Your task to perform on an android device: Search for sushi restaurants on Maps Image 0: 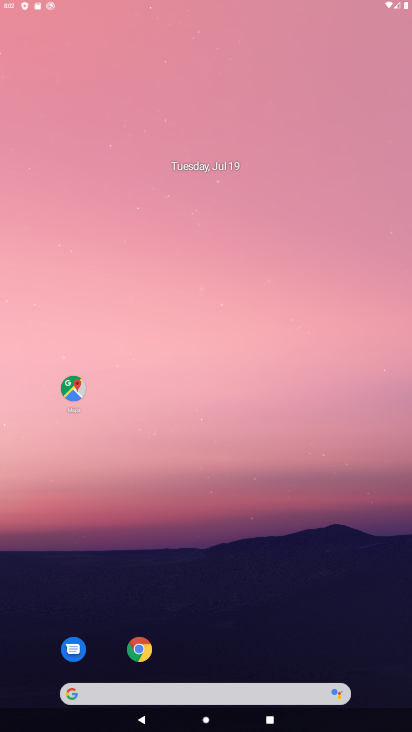
Step 0: press home button
Your task to perform on an android device: Search for sushi restaurants on Maps Image 1: 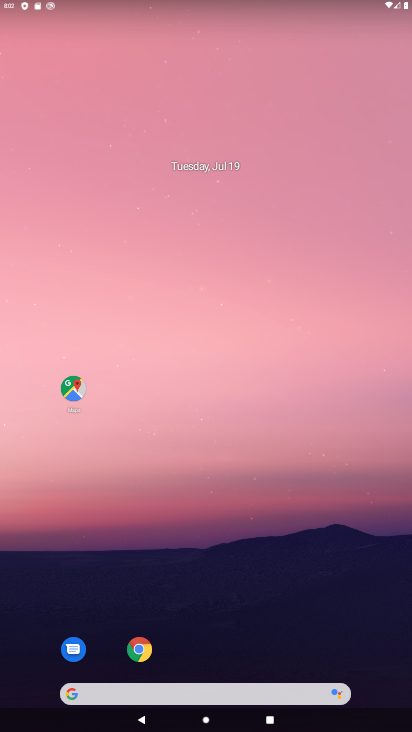
Step 1: click (70, 387)
Your task to perform on an android device: Search for sushi restaurants on Maps Image 2: 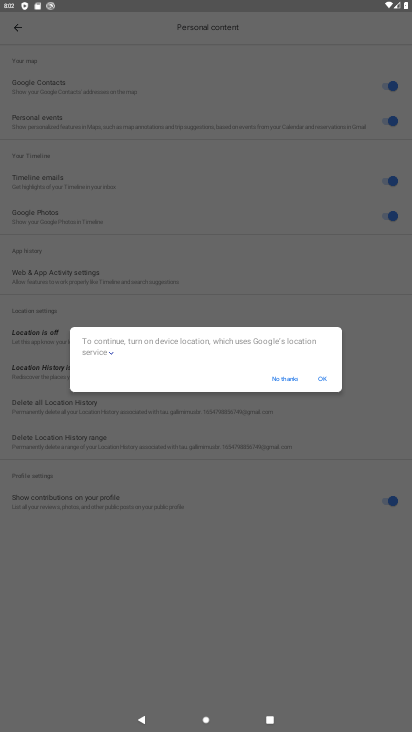
Step 2: click (323, 376)
Your task to perform on an android device: Search for sushi restaurants on Maps Image 3: 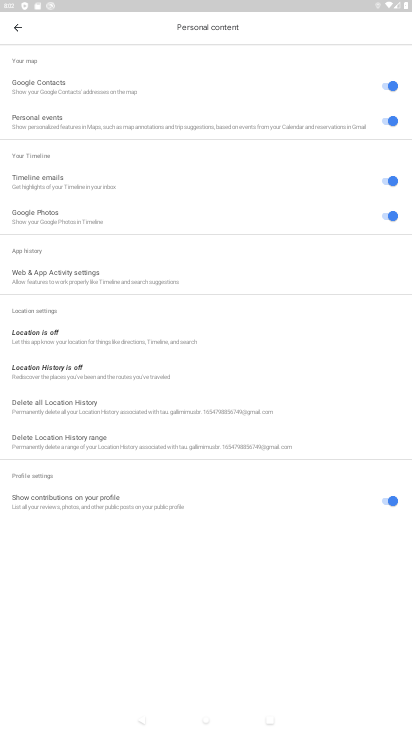
Step 3: click (18, 30)
Your task to perform on an android device: Search for sushi restaurants on Maps Image 4: 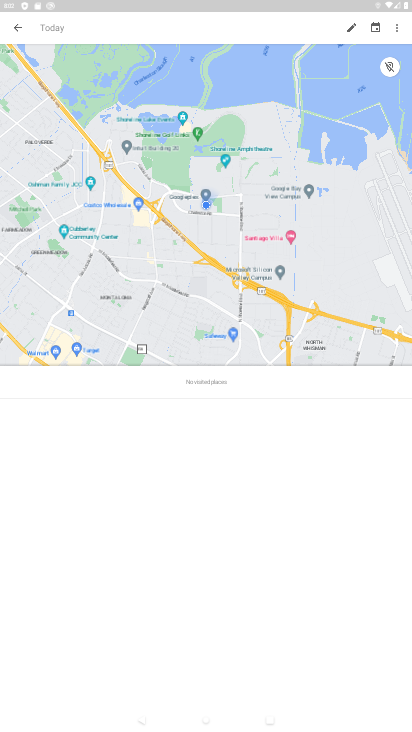
Step 4: click (8, 19)
Your task to perform on an android device: Search for sushi restaurants on Maps Image 5: 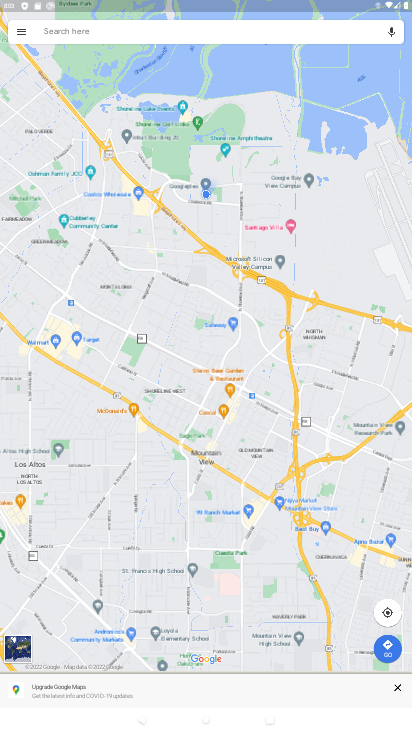
Step 5: click (99, 30)
Your task to perform on an android device: Search for sushi restaurants on Maps Image 6: 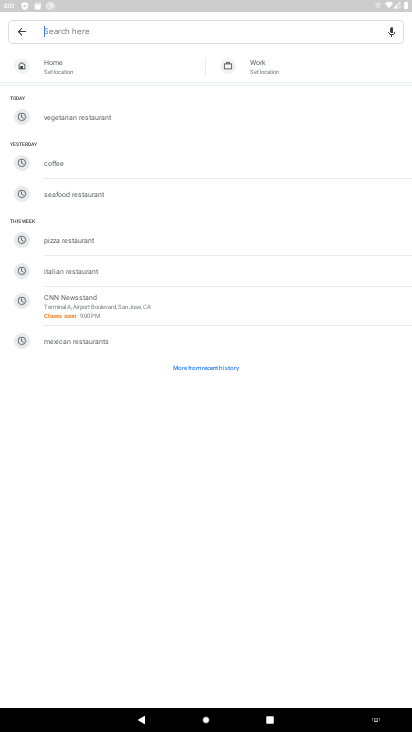
Step 6: type "sushi restaurants"
Your task to perform on an android device: Search for sushi restaurants on Maps Image 7: 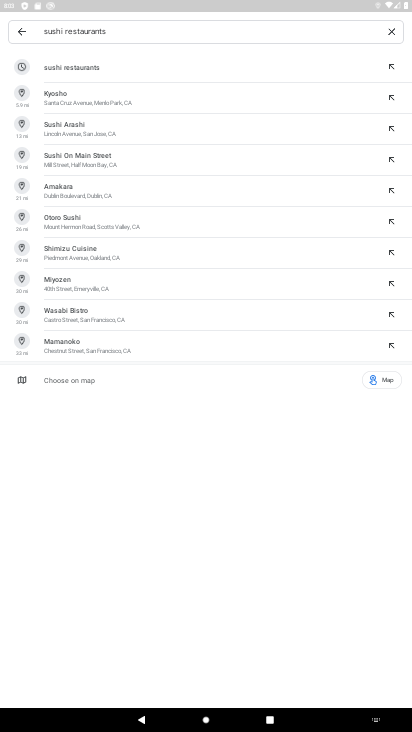
Step 7: click (118, 67)
Your task to perform on an android device: Search for sushi restaurants on Maps Image 8: 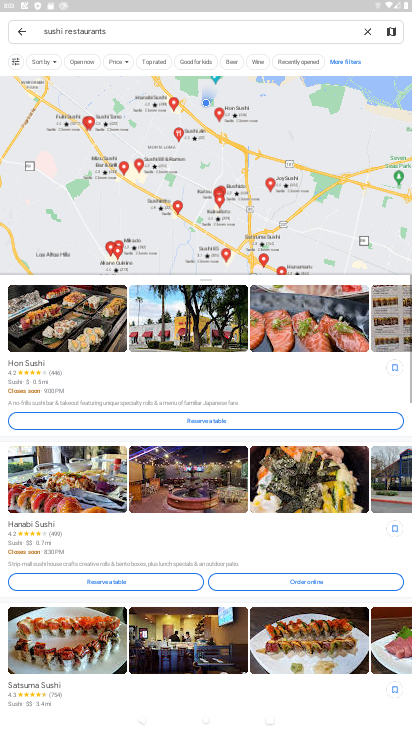
Step 8: task complete